Your task to perform on an android device: Open the map Image 0: 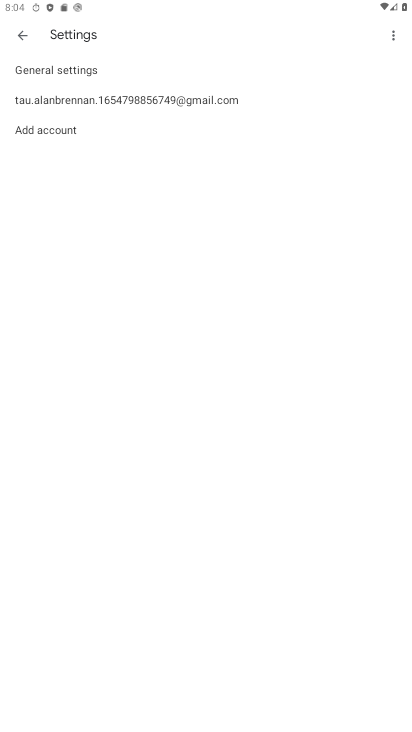
Step 0: press home button
Your task to perform on an android device: Open the map Image 1: 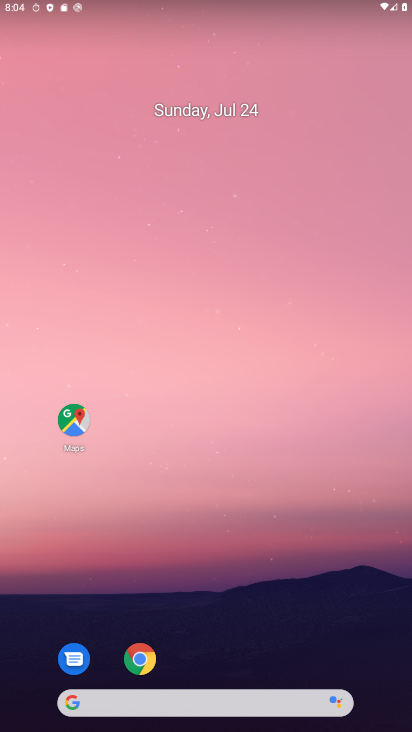
Step 1: drag from (234, 677) to (251, 25)
Your task to perform on an android device: Open the map Image 2: 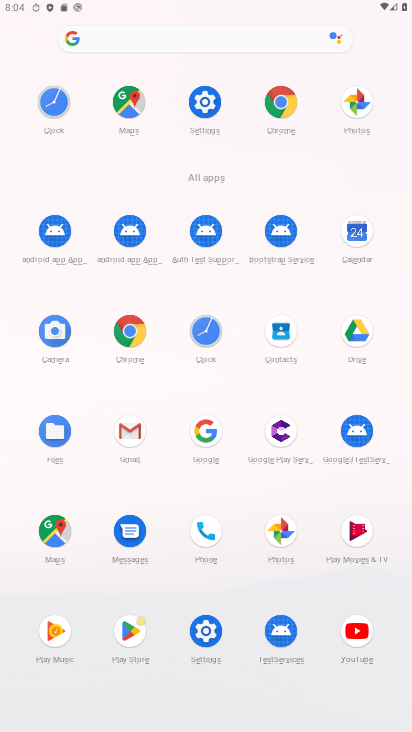
Step 2: click (55, 540)
Your task to perform on an android device: Open the map Image 3: 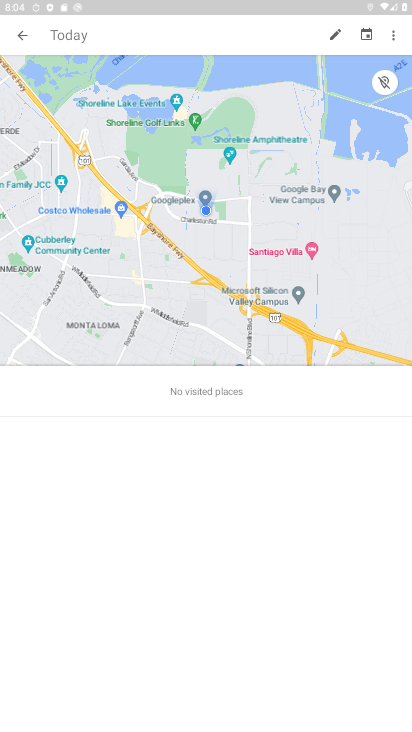
Step 3: click (17, 37)
Your task to perform on an android device: Open the map Image 4: 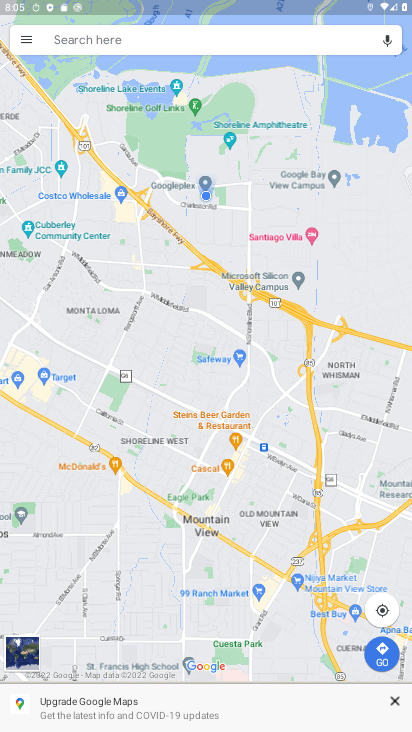
Step 4: task complete